Your task to perform on an android device: set an alarm Image 0: 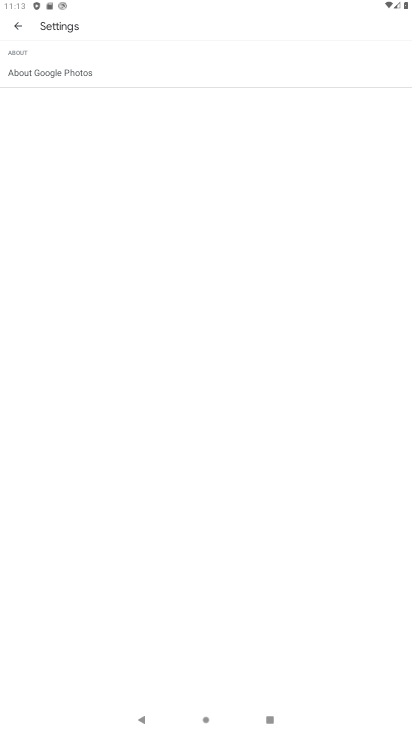
Step 0: press home button
Your task to perform on an android device: set an alarm Image 1: 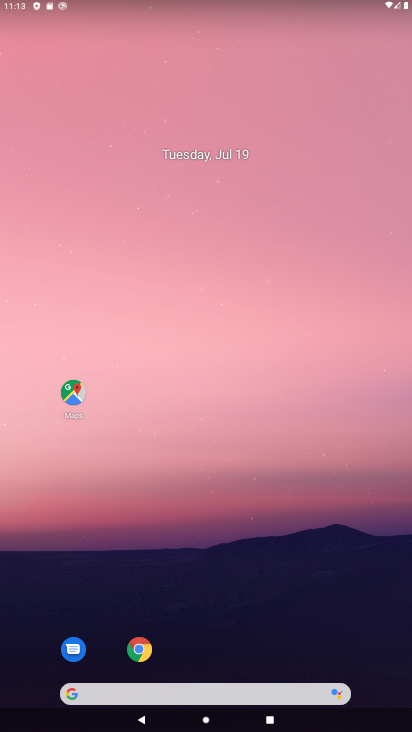
Step 1: drag from (195, 705) to (198, 187)
Your task to perform on an android device: set an alarm Image 2: 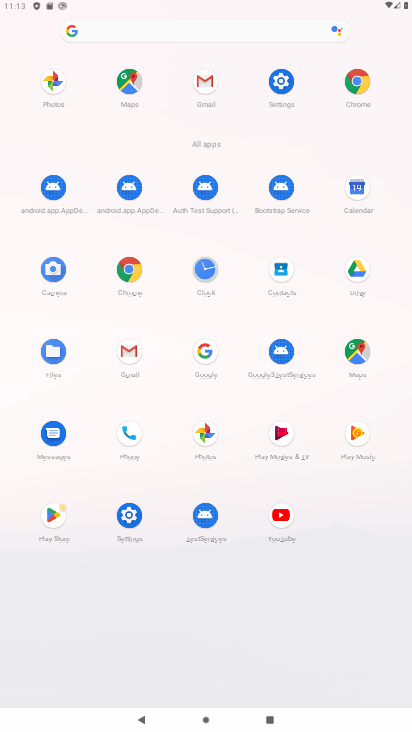
Step 2: click (194, 272)
Your task to perform on an android device: set an alarm Image 3: 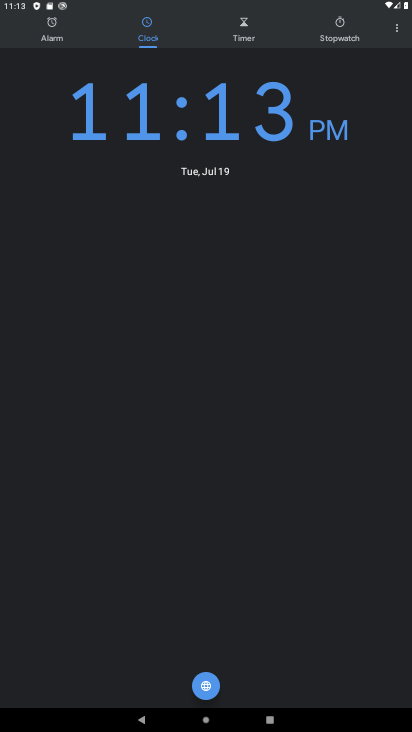
Step 3: click (47, 30)
Your task to perform on an android device: set an alarm Image 4: 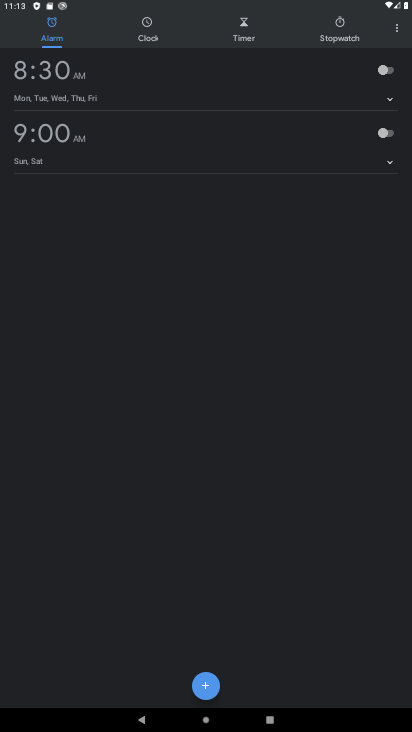
Step 4: click (389, 70)
Your task to perform on an android device: set an alarm Image 5: 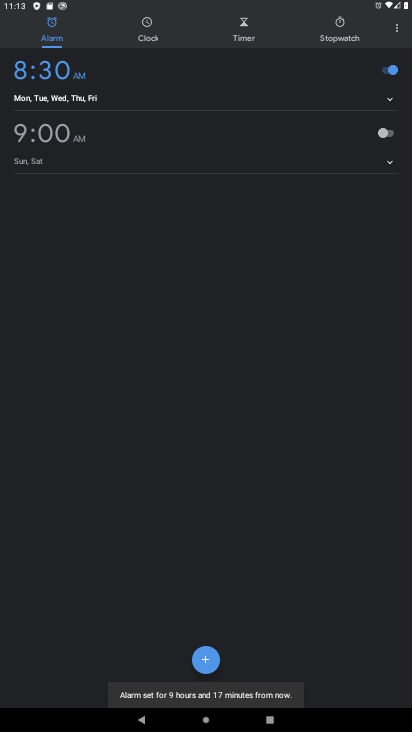
Step 5: task complete